Your task to perform on an android device: Is it going to rain today? Image 0: 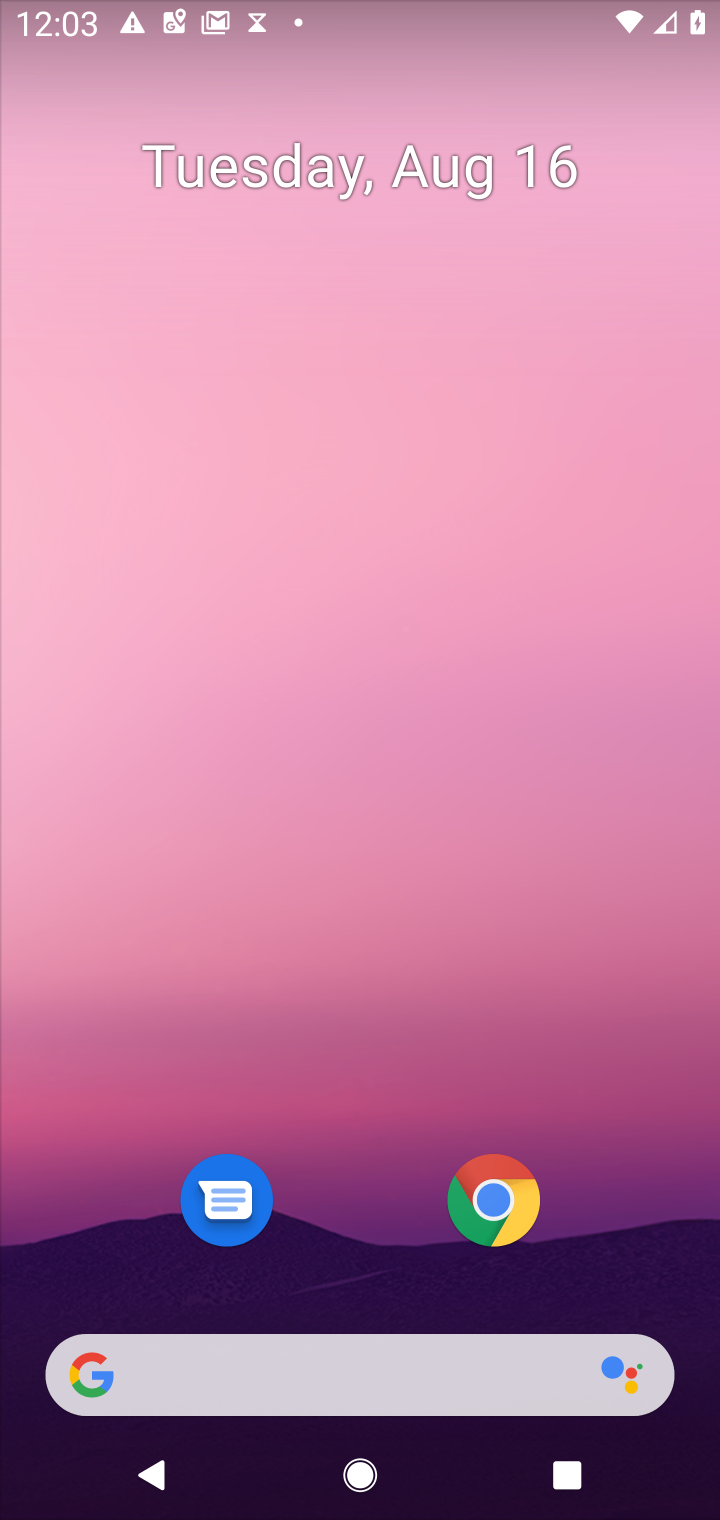
Step 0: drag from (384, 1052) to (402, 329)
Your task to perform on an android device: Is it going to rain today? Image 1: 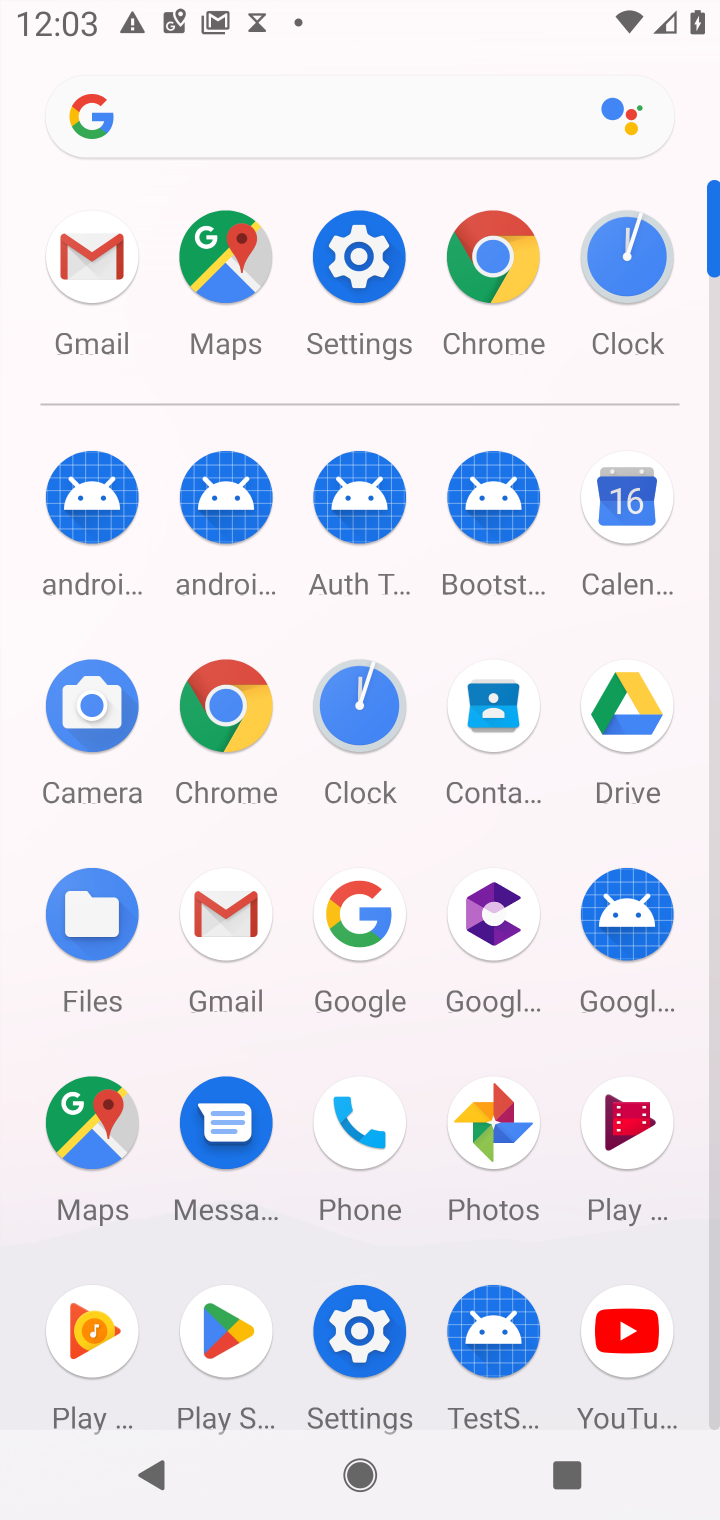
Step 1: click (351, 889)
Your task to perform on an android device: Is it going to rain today? Image 2: 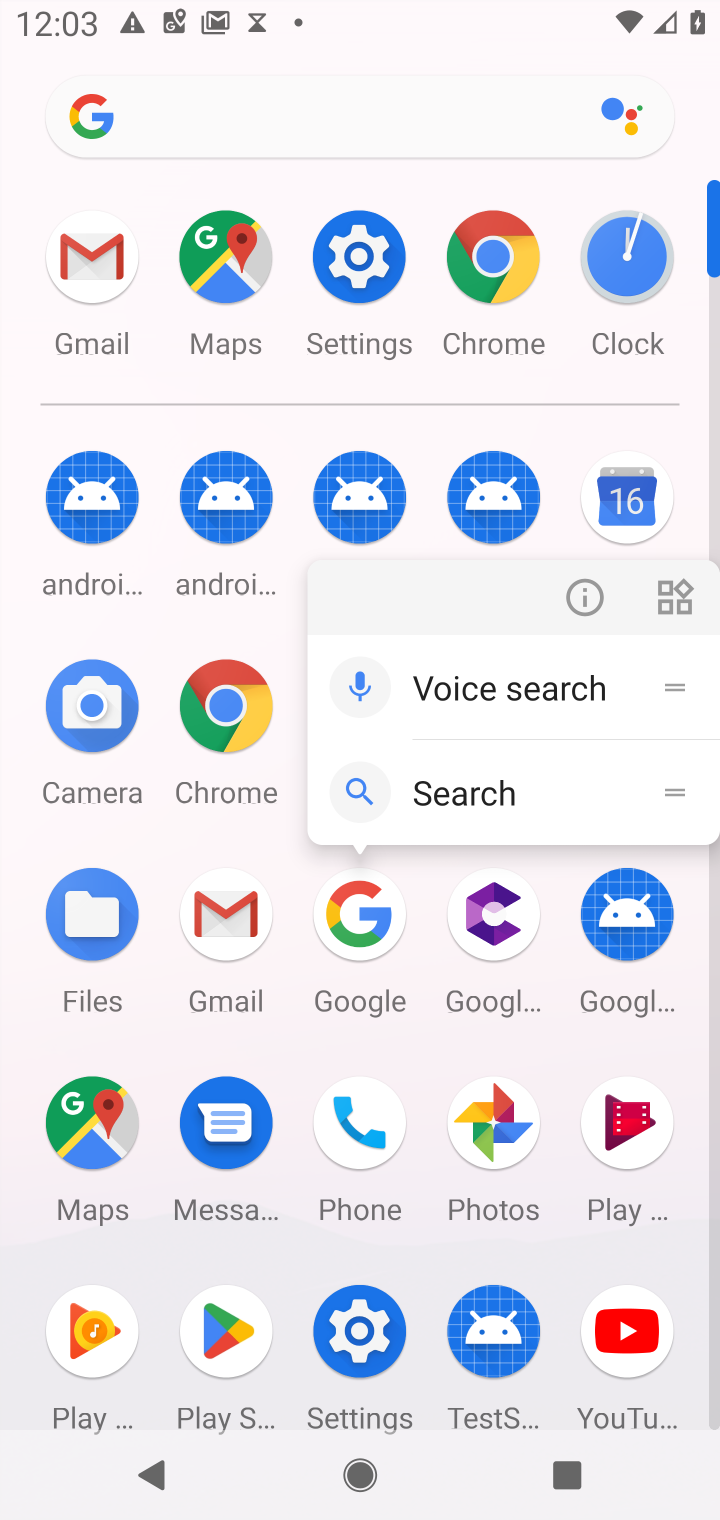
Step 2: click (356, 909)
Your task to perform on an android device: Is it going to rain today? Image 3: 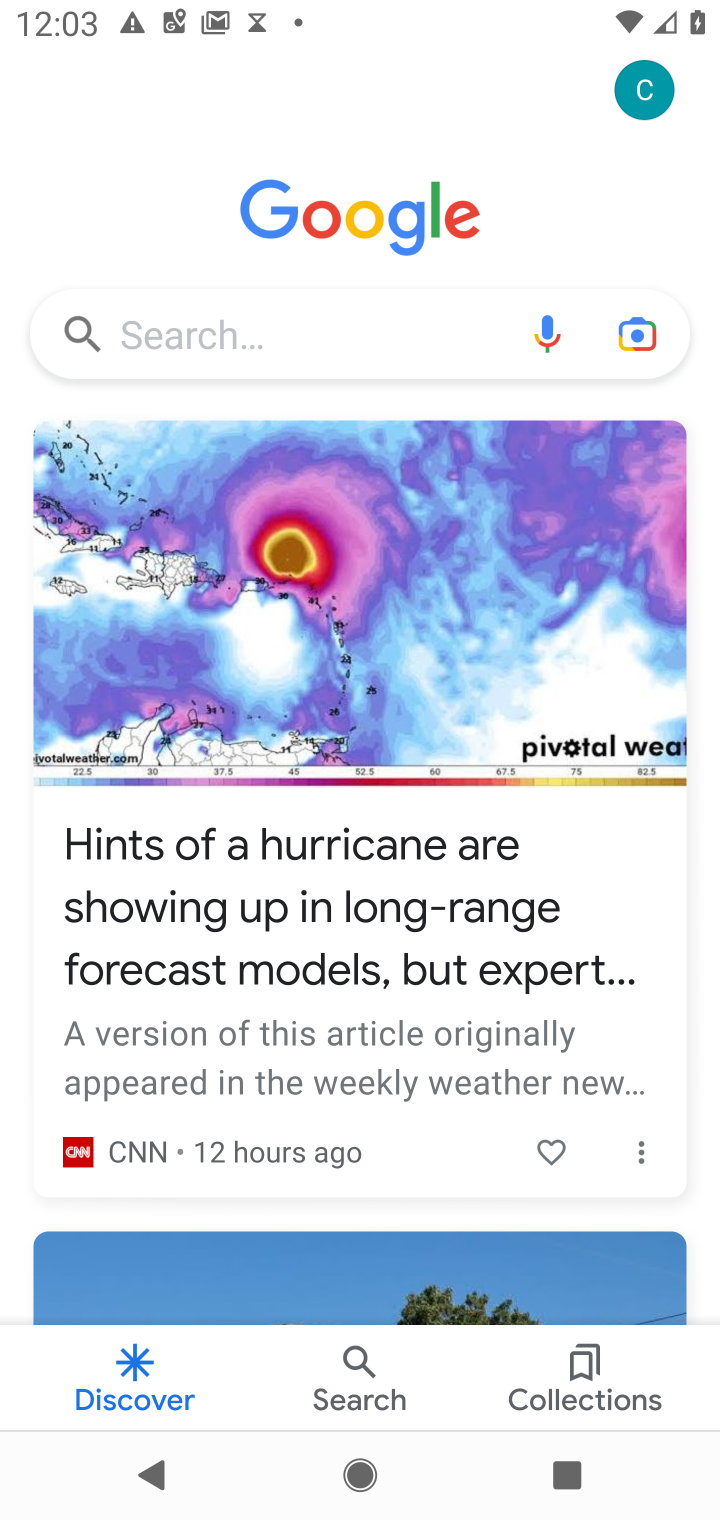
Step 3: click (284, 315)
Your task to perform on an android device: Is it going to rain today? Image 4: 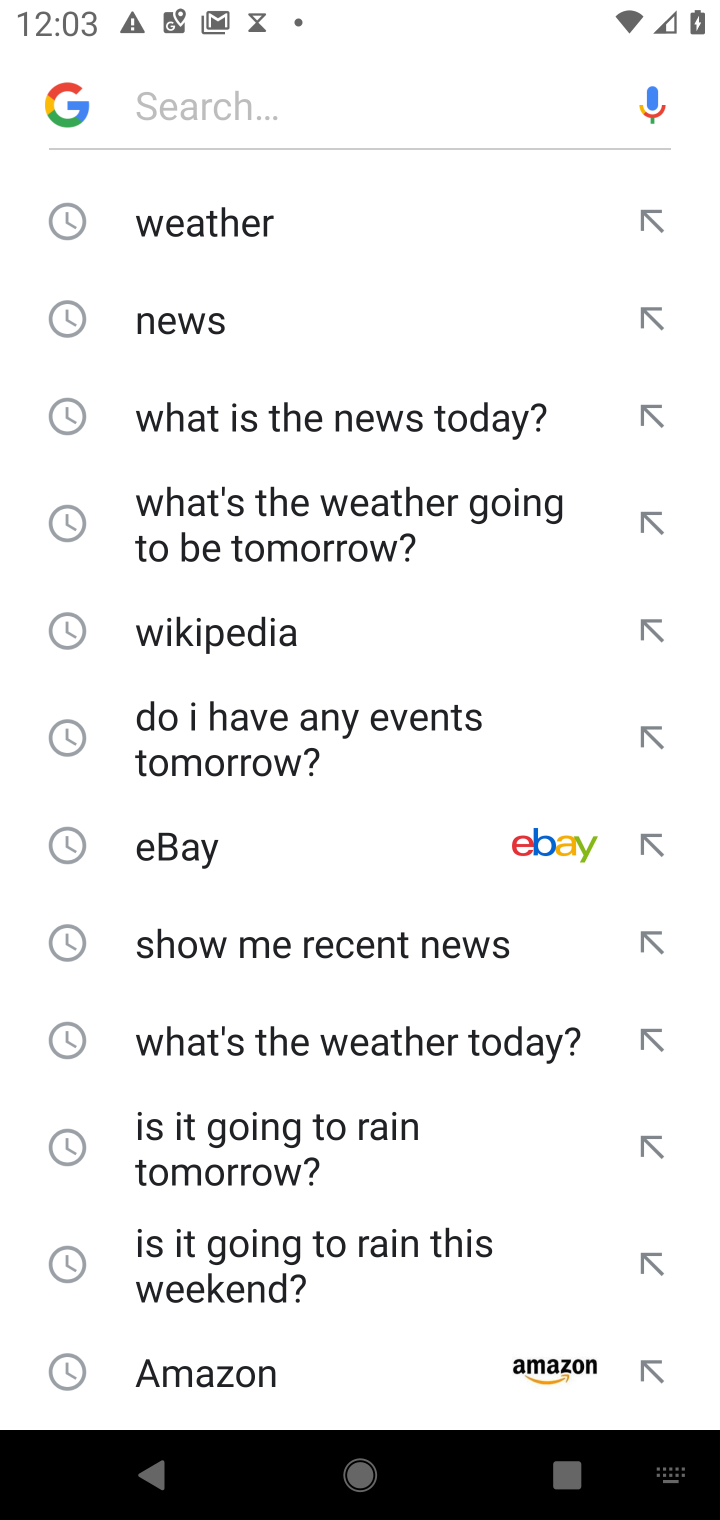
Step 4: click (313, 235)
Your task to perform on an android device: Is it going to rain today? Image 5: 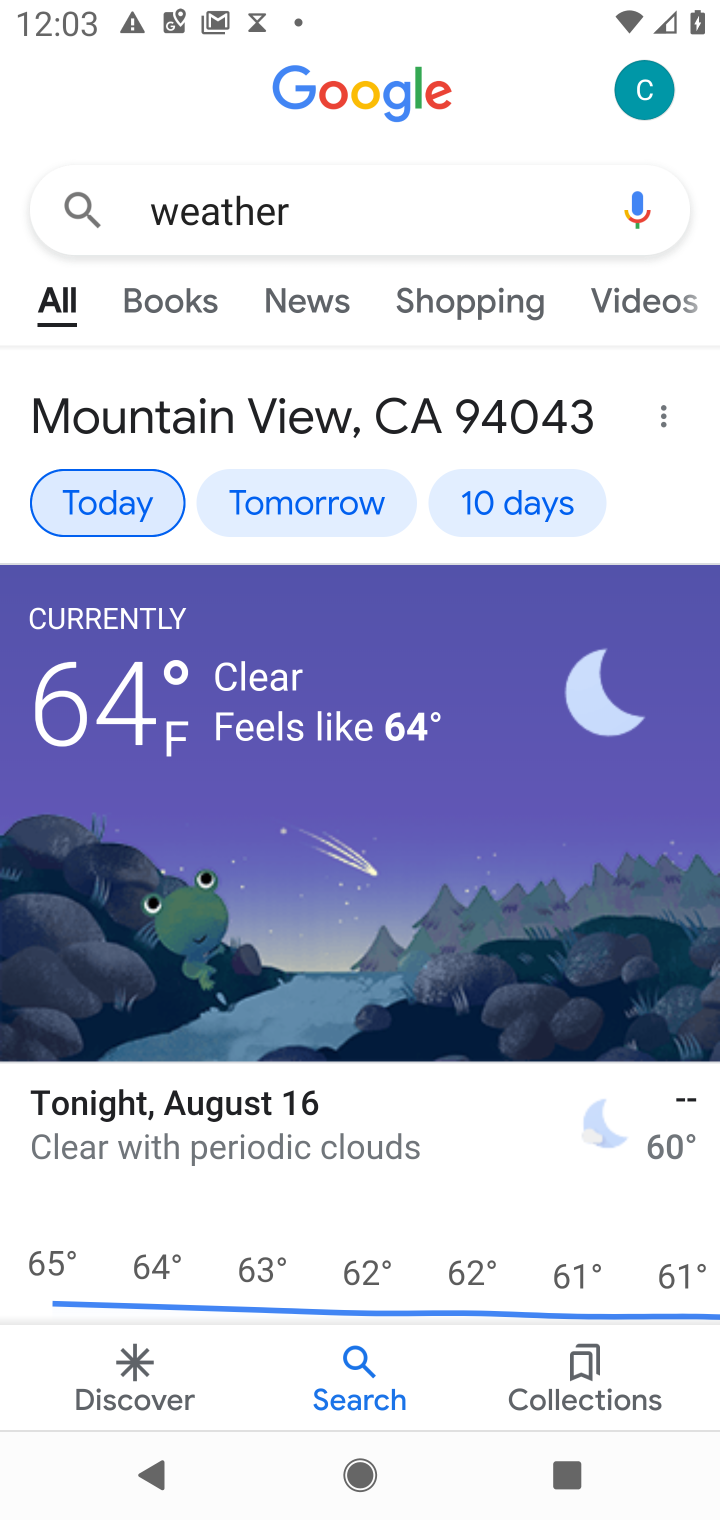
Step 5: task complete